Your task to perform on an android device: Open privacy settings Image 0: 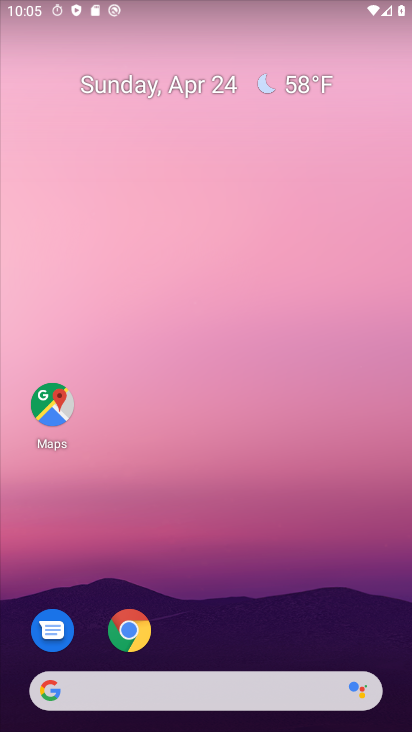
Step 0: drag from (221, 524) to (247, 326)
Your task to perform on an android device: Open privacy settings Image 1: 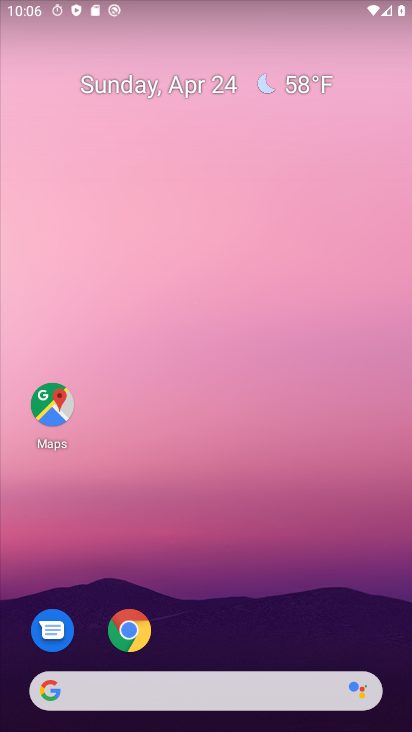
Step 1: drag from (186, 428) to (192, 141)
Your task to perform on an android device: Open privacy settings Image 2: 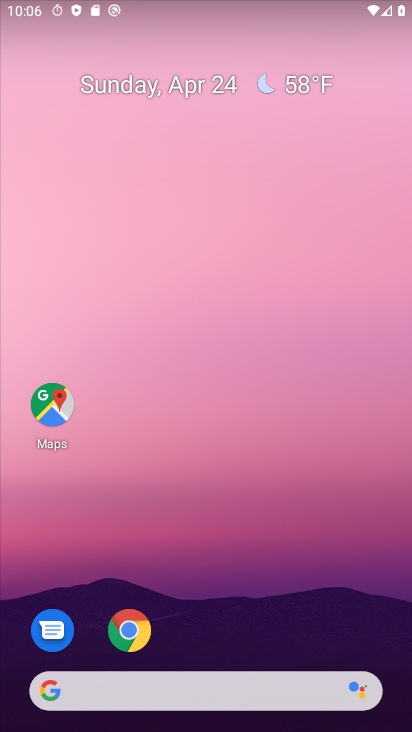
Step 2: drag from (166, 600) to (197, 4)
Your task to perform on an android device: Open privacy settings Image 3: 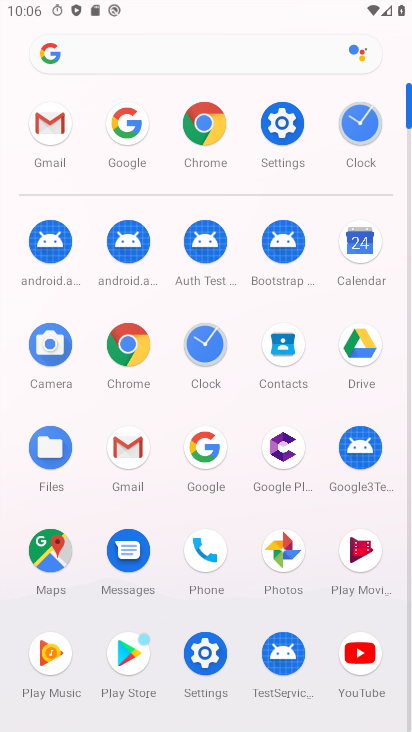
Step 3: click (289, 126)
Your task to perform on an android device: Open privacy settings Image 4: 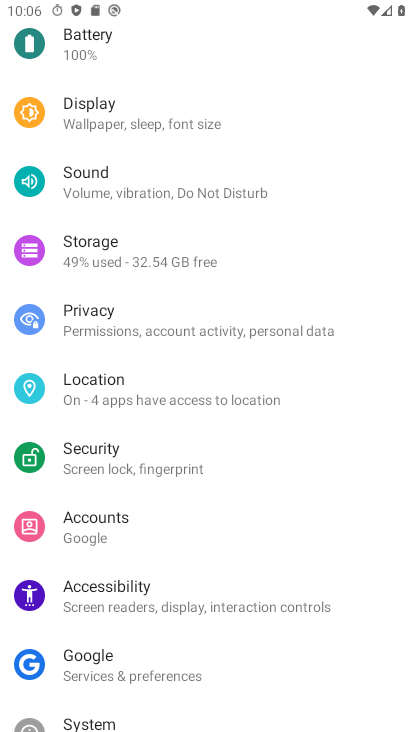
Step 4: click (157, 323)
Your task to perform on an android device: Open privacy settings Image 5: 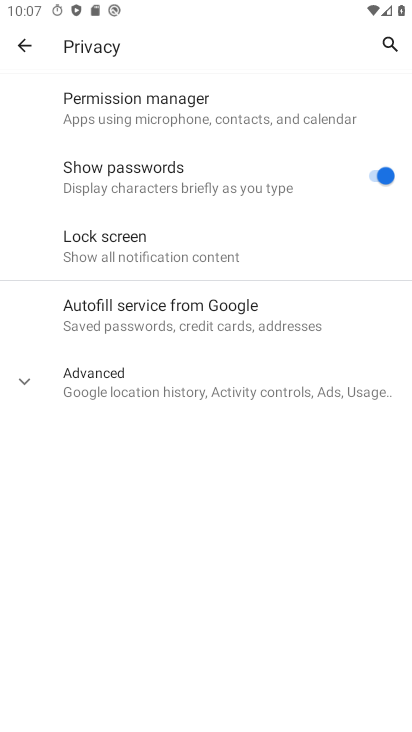
Step 5: task complete